Your task to perform on an android device: find photos in the google photos app Image 0: 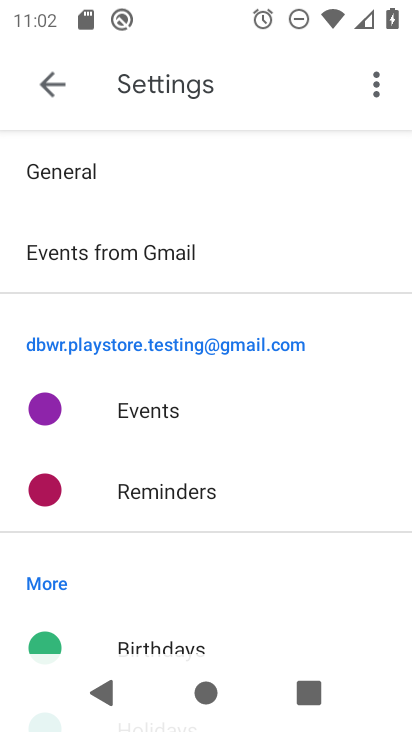
Step 0: press home button
Your task to perform on an android device: find photos in the google photos app Image 1: 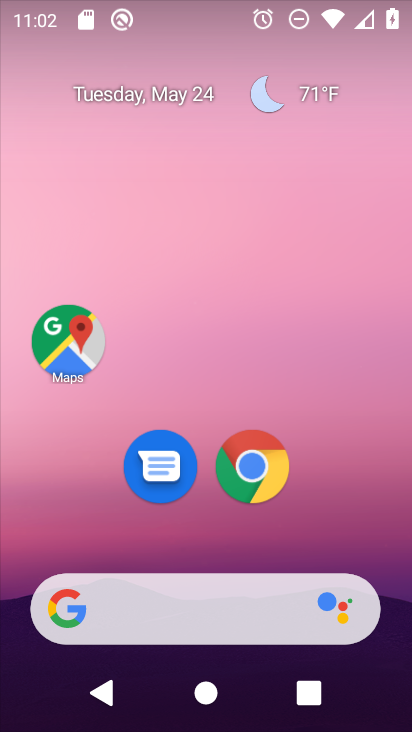
Step 1: drag from (211, 537) to (284, 91)
Your task to perform on an android device: find photos in the google photos app Image 2: 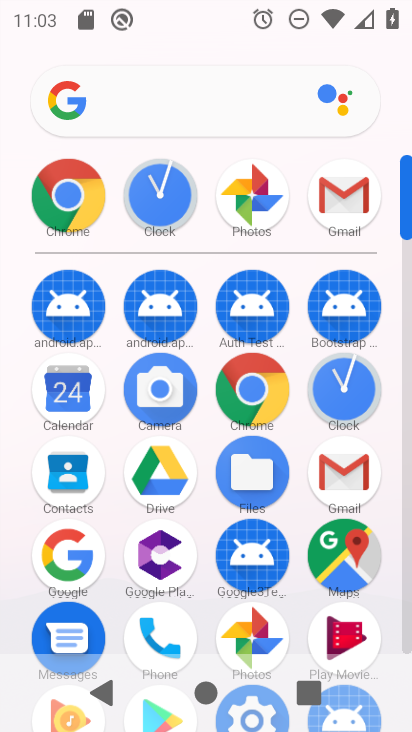
Step 2: click (262, 632)
Your task to perform on an android device: find photos in the google photos app Image 3: 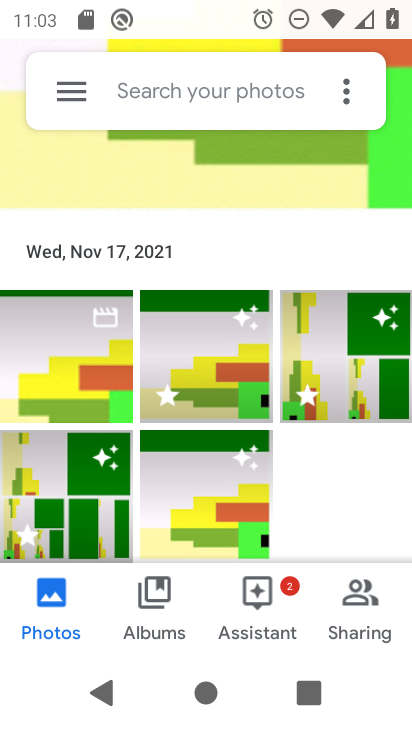
Step 3: task complete